Your task to perform on an android device: Open notification settings Image 0: 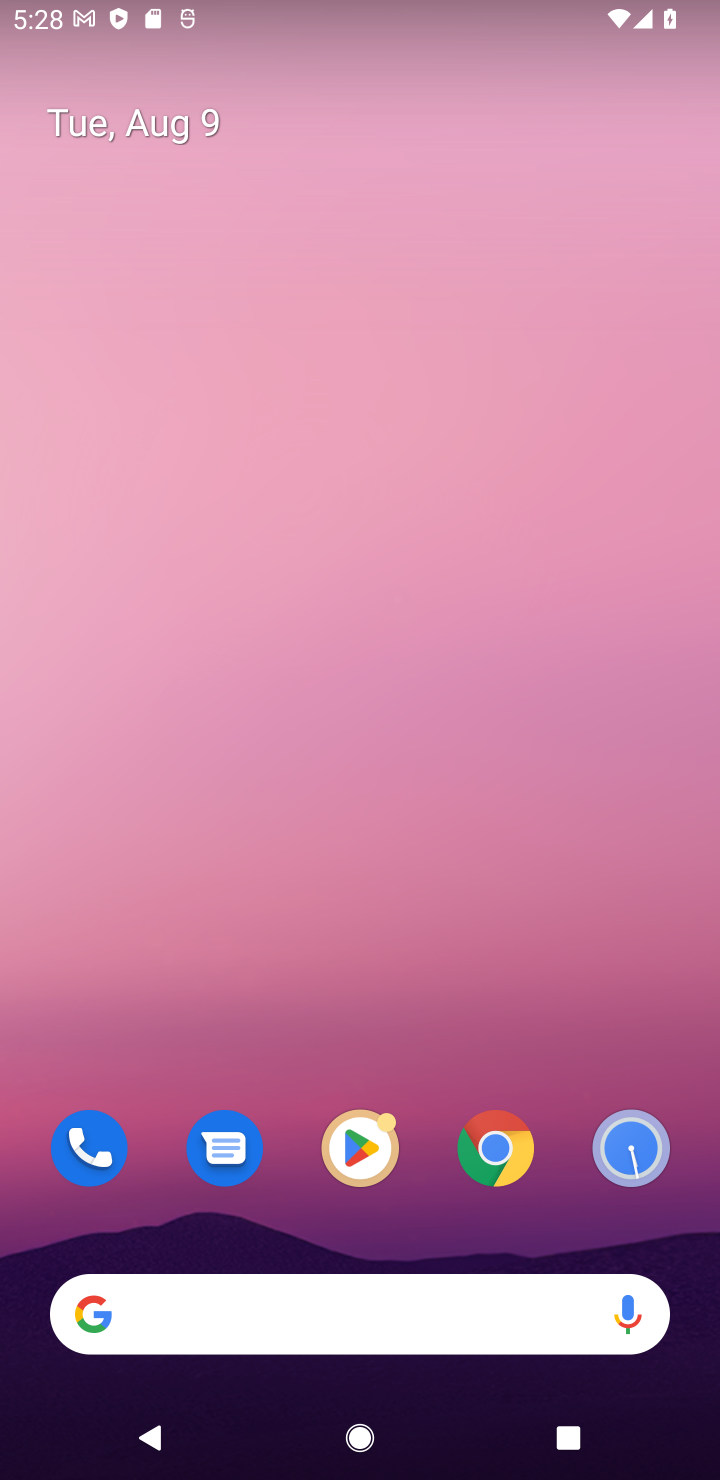
Step 0: drag from (387, 1015) to (479, 55)
Your task to perform on an android device: Open notification settings Image 1: 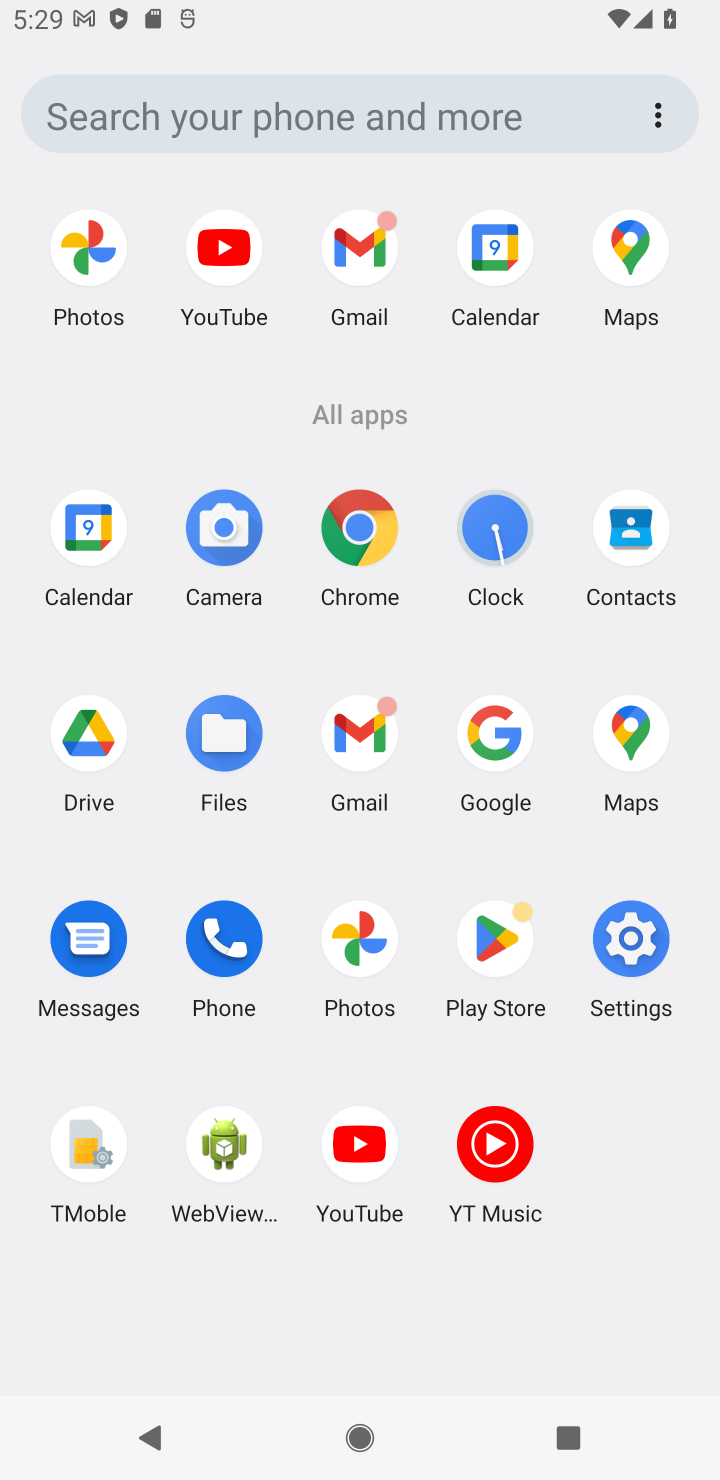
Step 1: click (646, 957)
Your task to perform on an android device: Open notification settings Image 2: 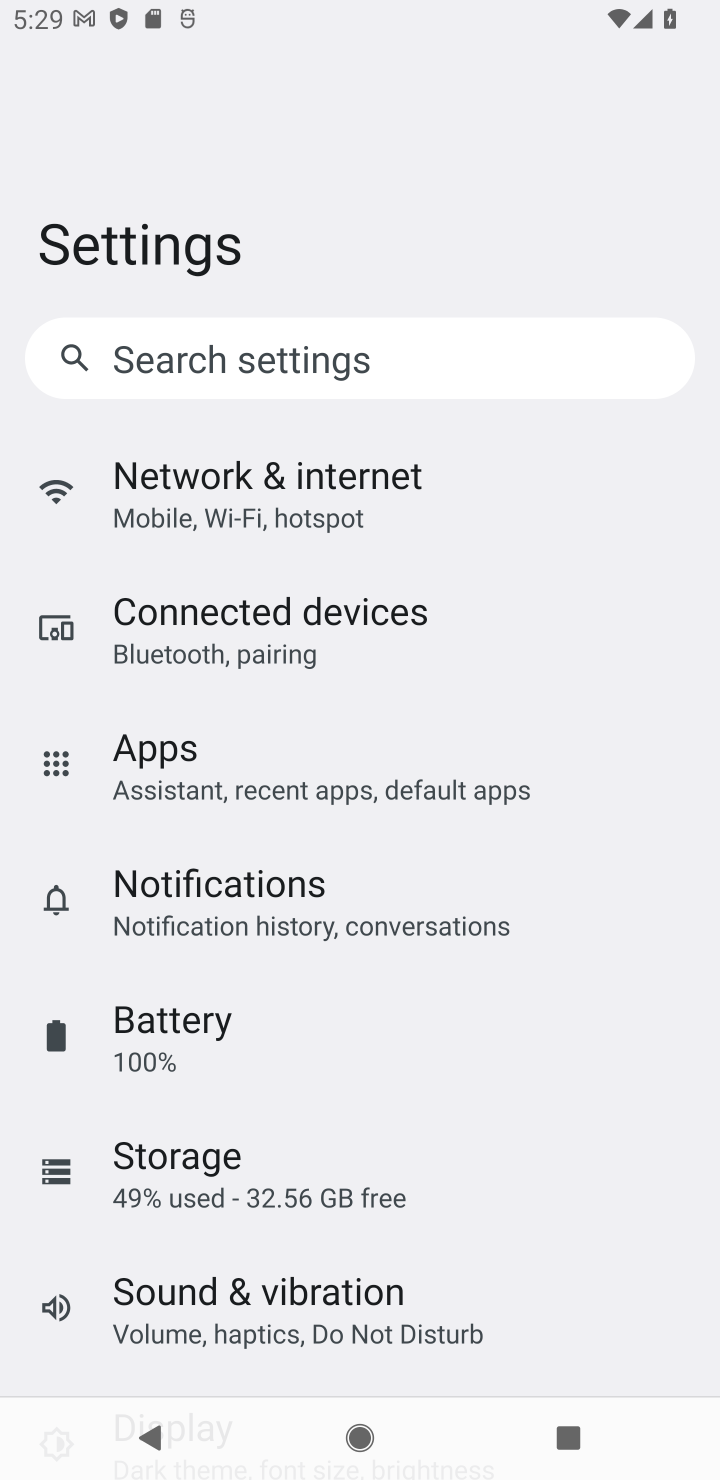
Step 2: click (289, 912)
Your task to perform on an android device: Open notification settings Image 3: 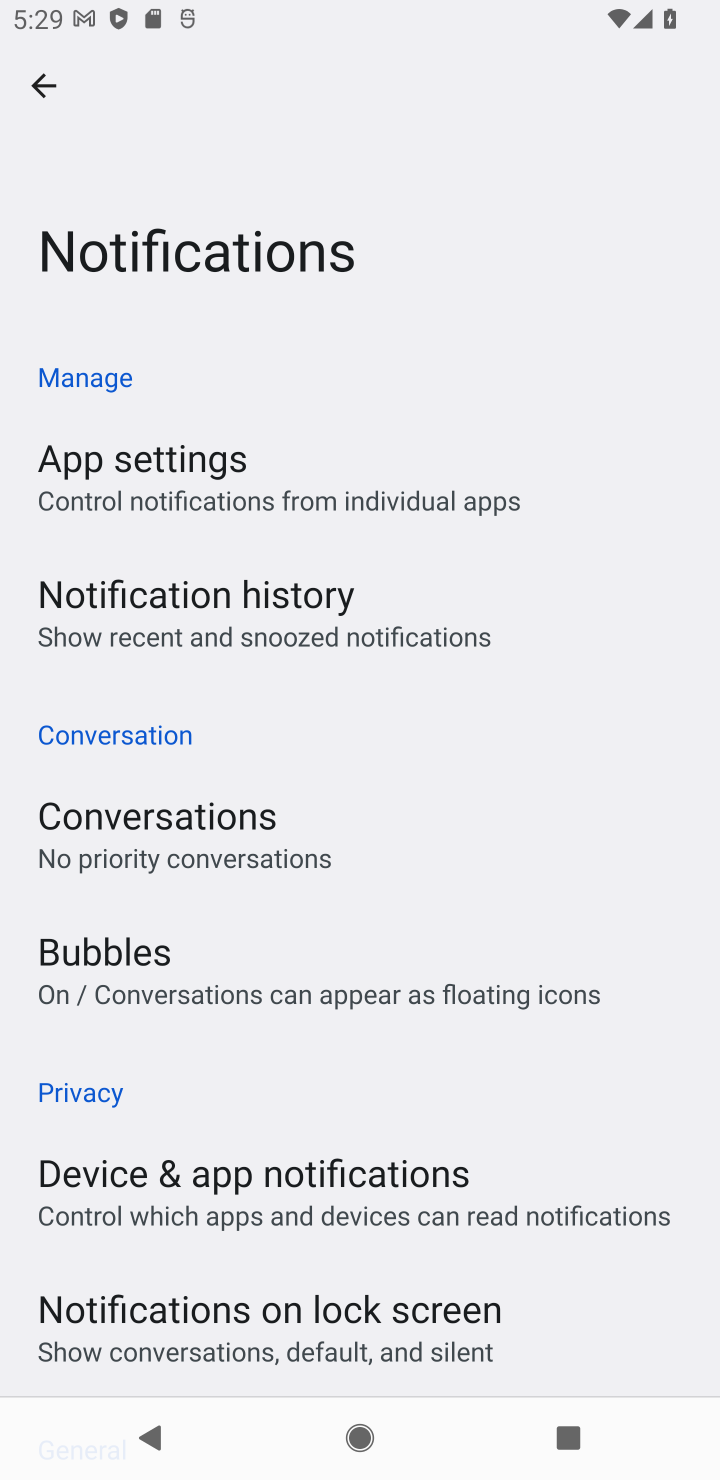
Step 3: task complete